Your task to perform on an android device: Search for custom made wallets on etsy.com Image 0: 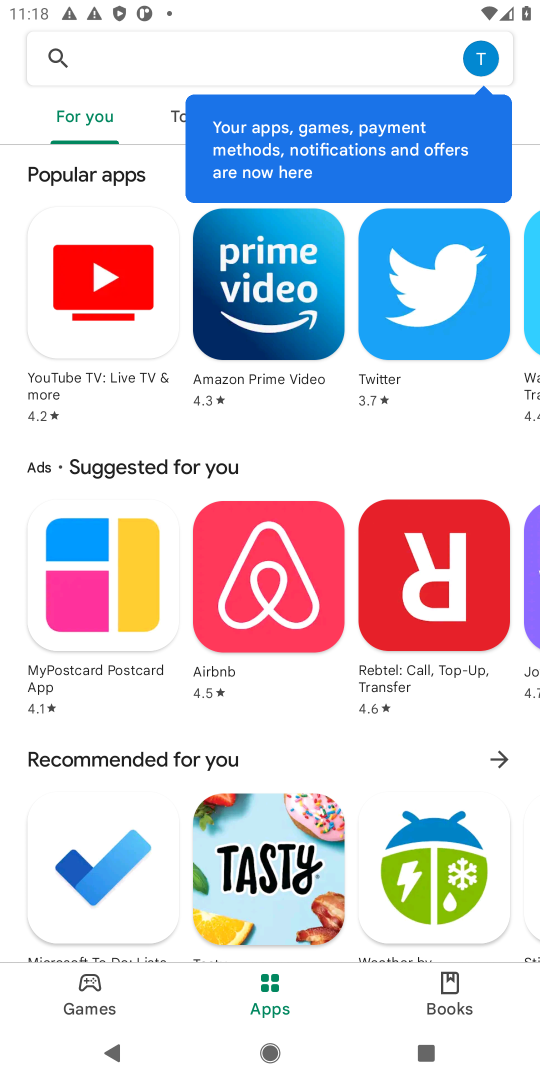
Step 0: press home button
Your task to perform on an android device: Search for custom made wallets on etsy.com Image 1: 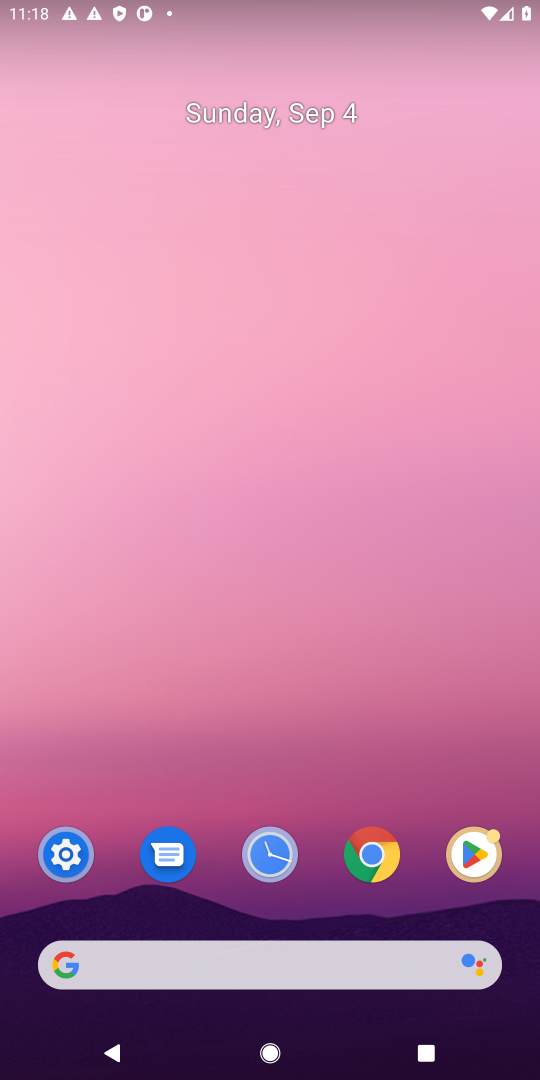
Step 1: click (398, 963)
Your task to perform on an android device: Search for custom made wallets on etsy.com Image 2: 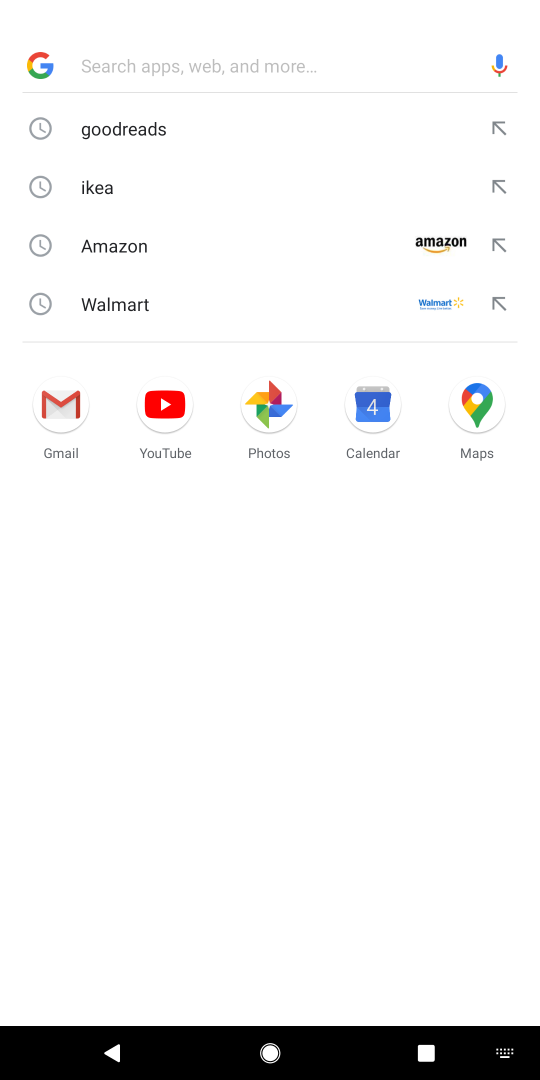
Step 2: press enter
Your task to perform on an android device: Search for custom made wallets on etsy.com Image 3: 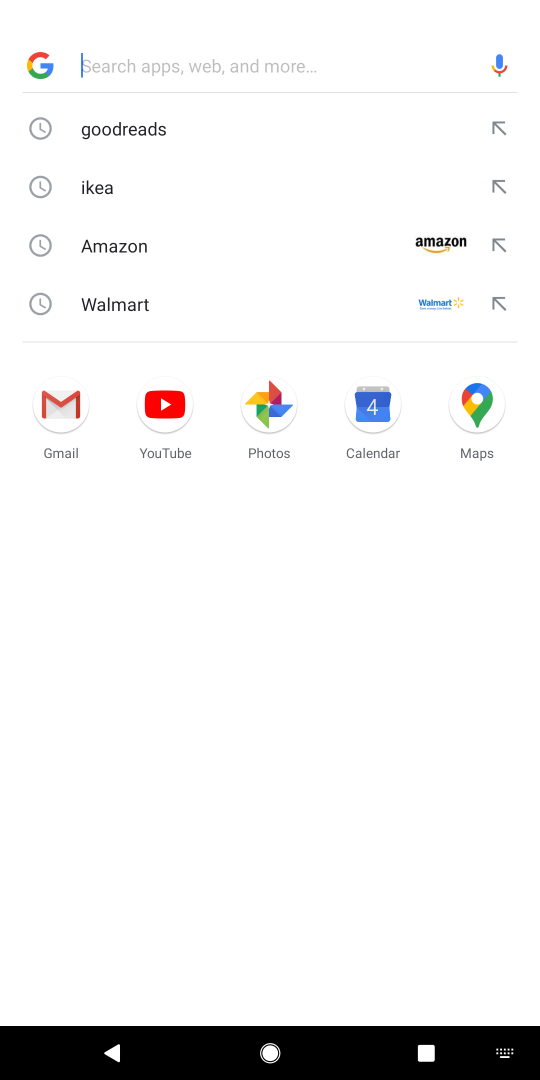
Step 3: type "etsy.com"
Your task to perform on an android device: Search for custom made wallets on etsy.com Image 4: 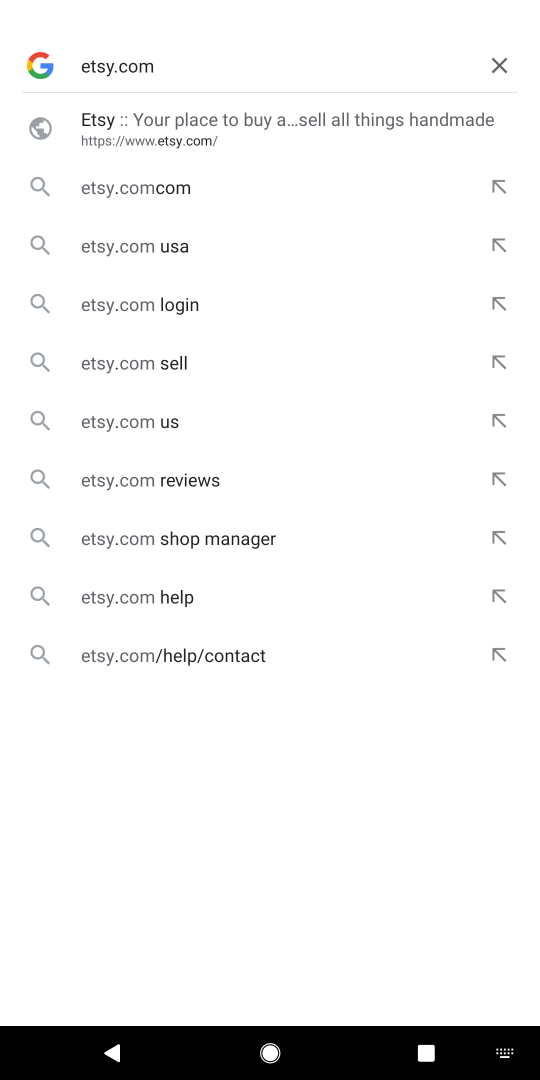
Step 4: click (182, 128)
Your task to perform on an android device: Search for custom made wallets on etsy.com Image 5: 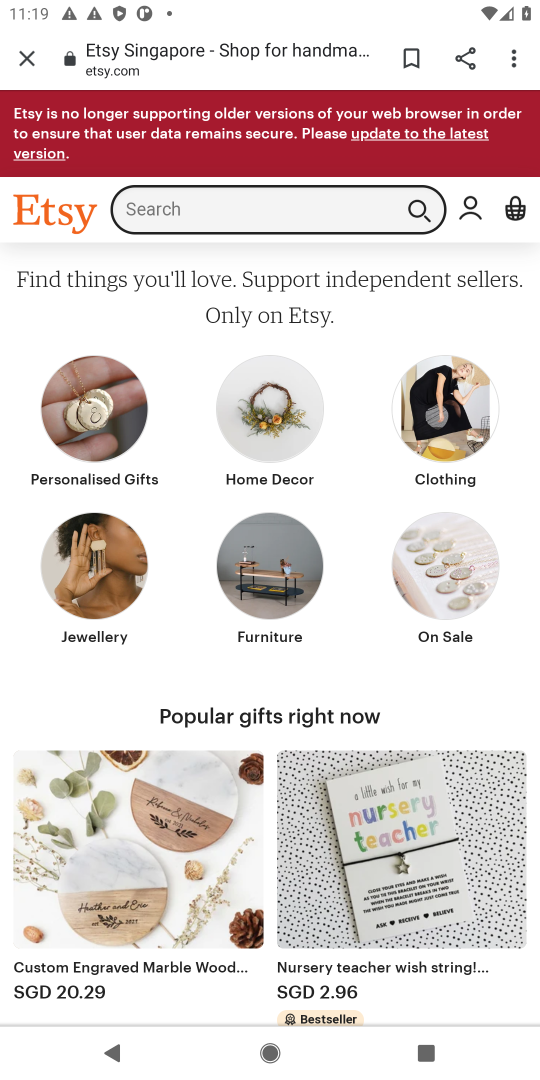
Step 5: click (221, 208)
Your task to perform on an android device: Search for custom made wallets on etsy.com Image 6: 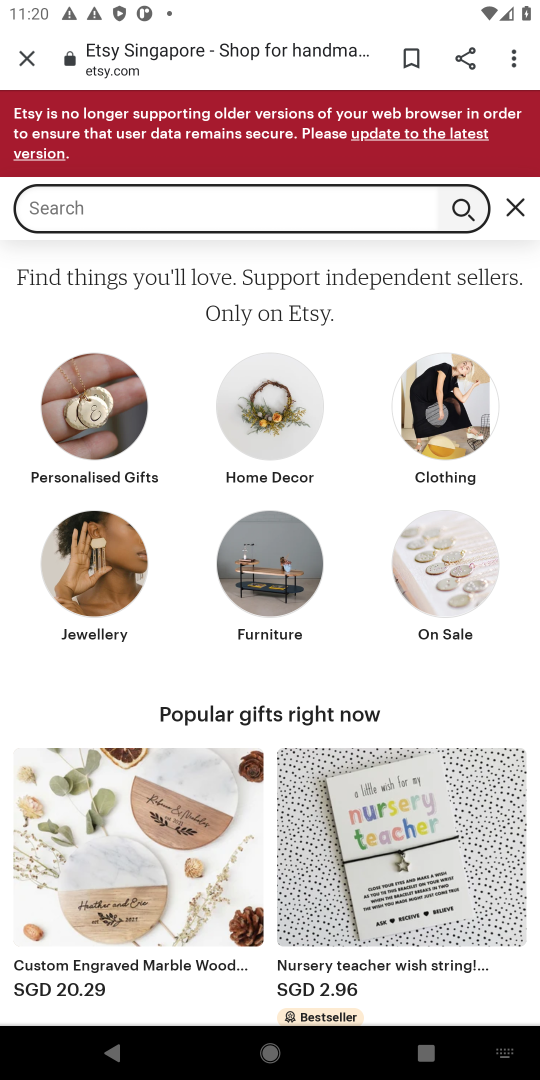
Step 6: type "custom made wallets"
Your task to perform on an android device: Search for custom made wallets on etsy.com Image 7: 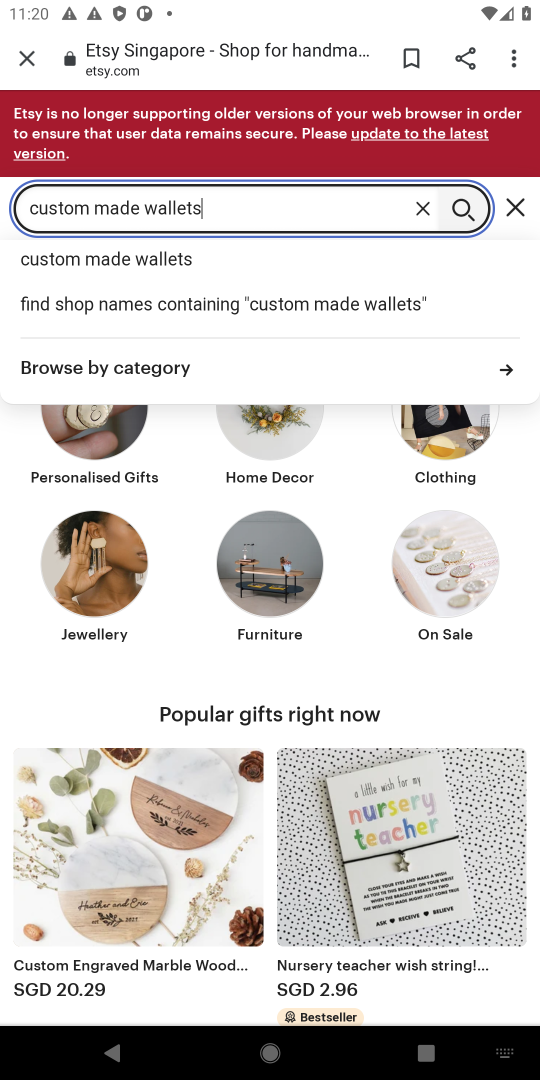
Step 7: click (169, 250)
Your task to perform on an android device: Search for custom made wallets on etsy.com Image 8: 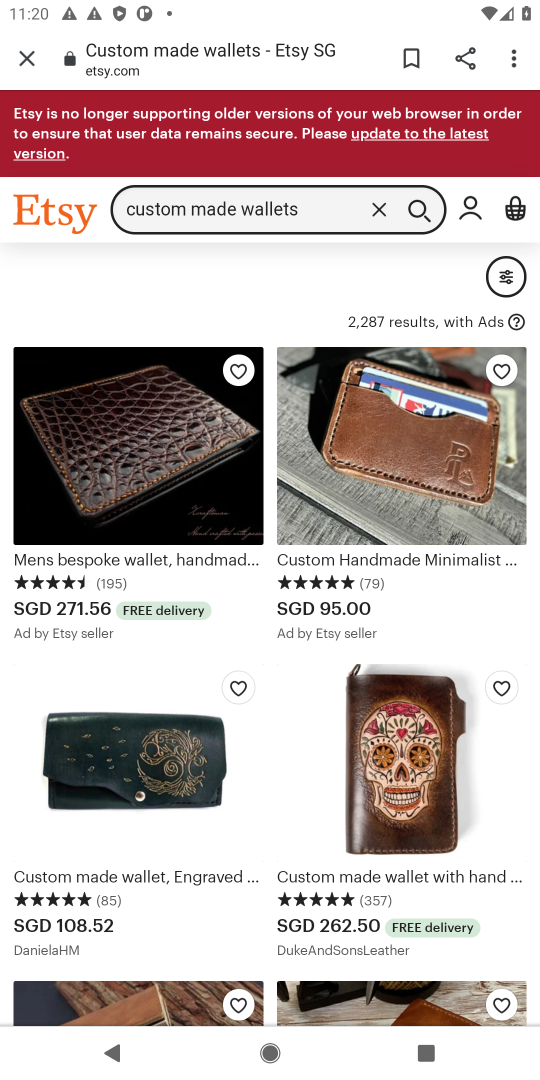
Step 8: task complete